Your task to perform on an android device: Open the phone app and click the voicemail tab. Image 0: 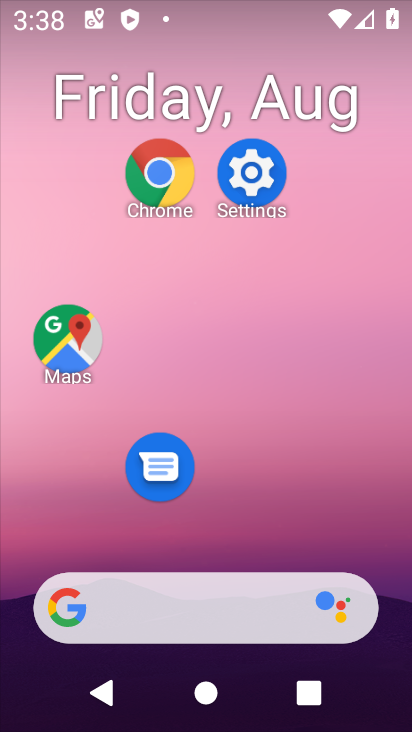
Step 0: press home button
Your task to perform on an android device: Open the phone app and click the voicemail tab. Image 1: 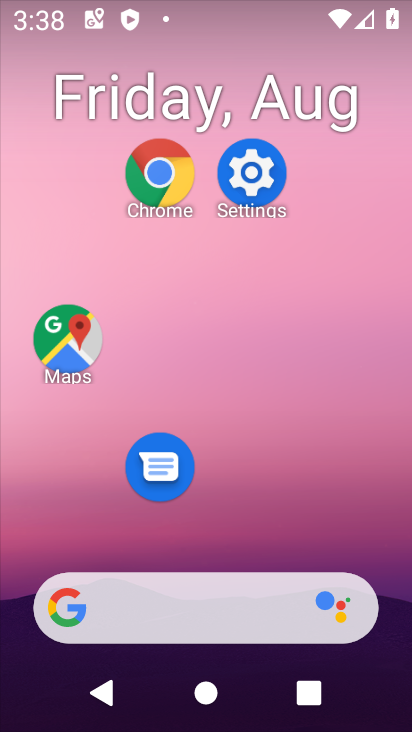
Step 1: drag from (327, 519) to (304, 131)
Your task to perform on an android device: Open the phone app and click the voicemail tab. Image 2: 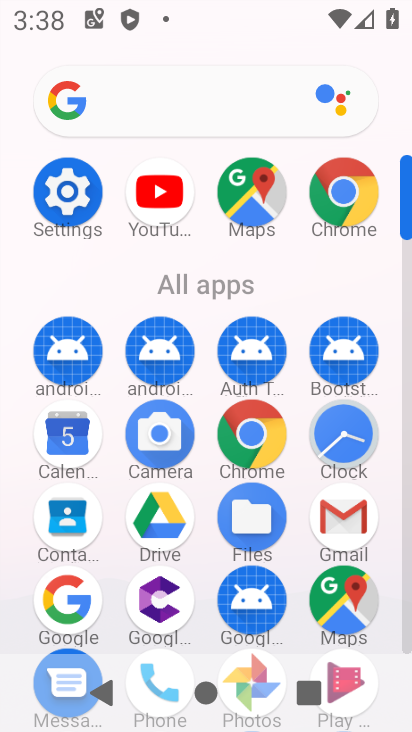
Step 2: drag from (294, 561) to (276, 110)
Your task to perform on an android device: Open the phone app and click the voicemail tab. Image 3: 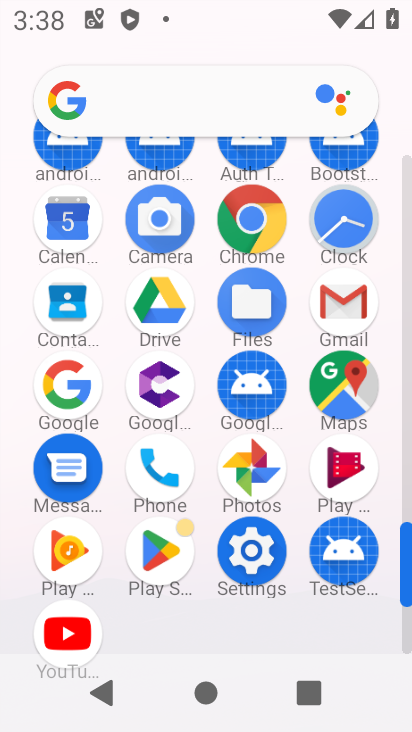
Step 3: click (333, 476)
Your task to perform on an android device: Open the phone app and click the voicemail tab. Image 4: 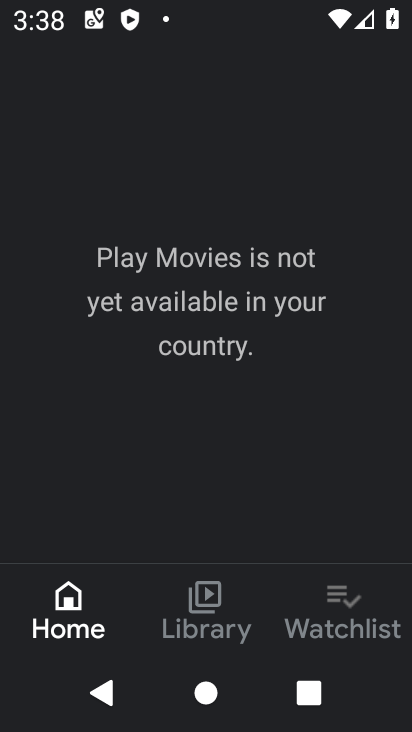
Step 4: click (344, 604)
Your task to perform on an android device: Open the phone app and click the voicemail tab. Image 5: 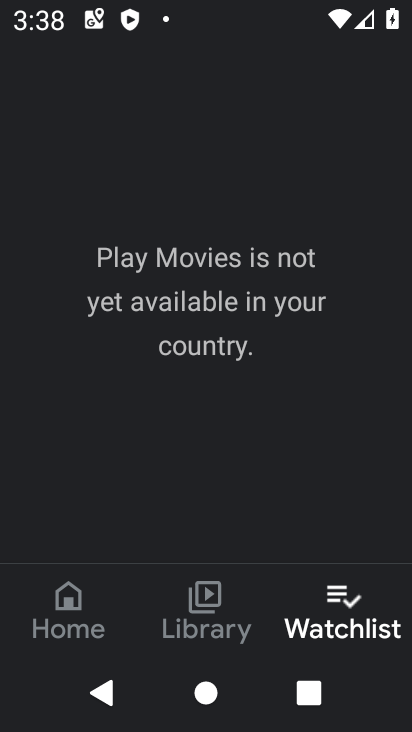
Step 5: task complete